Your task to perform on an android device: turn on priority inbox in the gmail app Image 0: 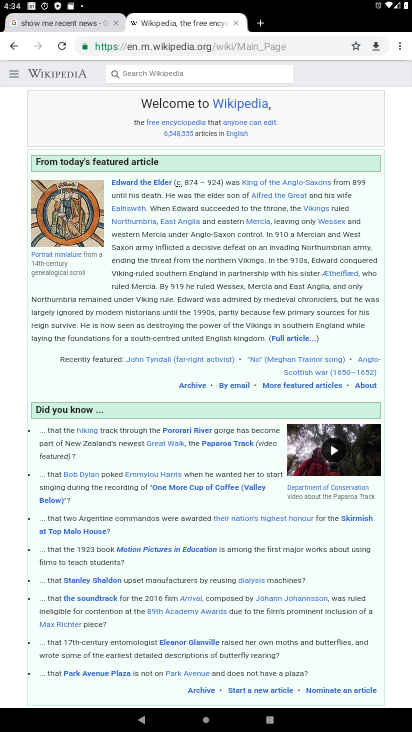
Step 0: press home button
Your task to perform on an android device: turn on priority inbox in the gmail app Image 1: 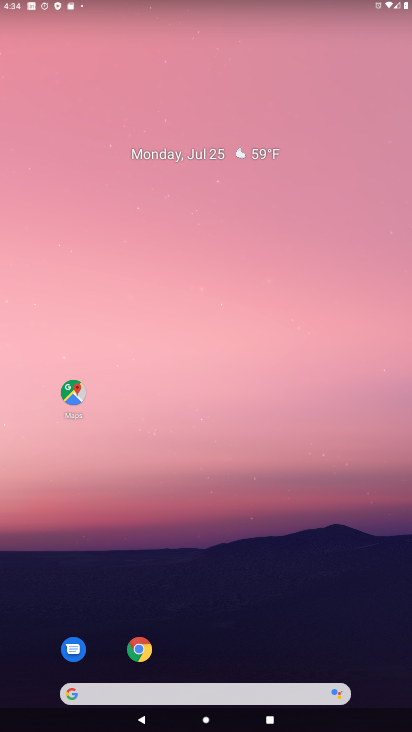
Step 1: drag from (273, 652) to (181, 214)
Your task to perform on an android device: turn on priority inbox in the gmail app Image 2: 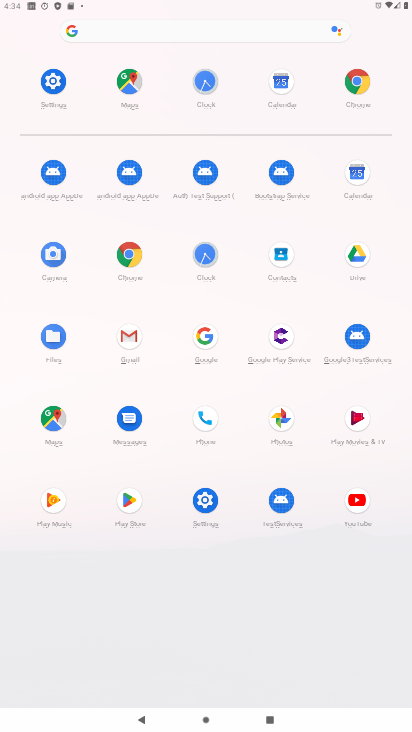
Step 2: click (130, 334)
Your task to perform on an android device: turn on priority inbox in the gmail app Image 3: 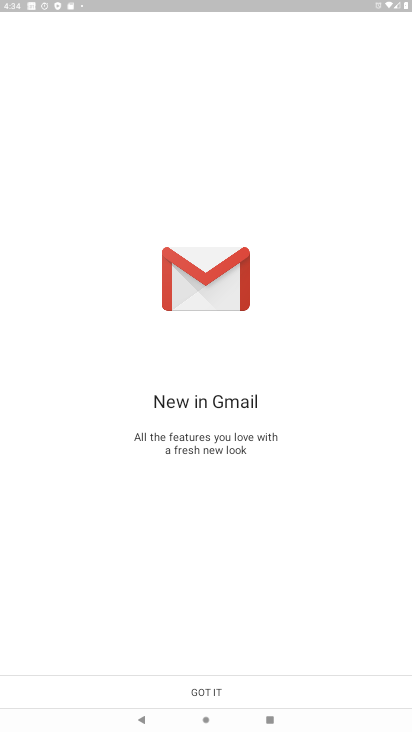
Step 3: click (198, 690)
Your task to perform on an android device: turn on priority inbox in the gmail app Image 4: 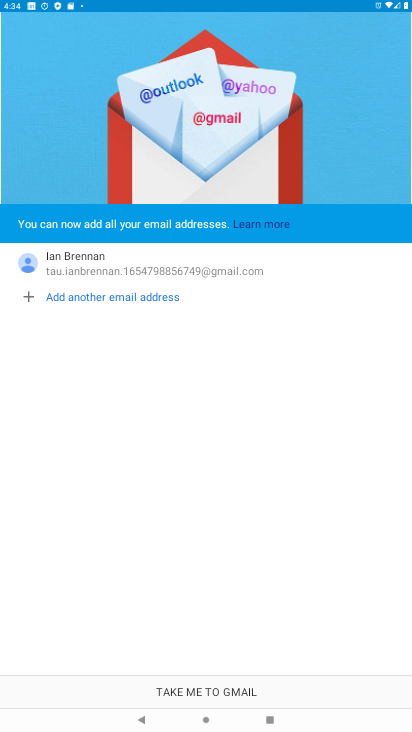
Step 4: click (198, 692)
Your task to perform on an android device: turn on priority inbox in the gmail app Image 5: 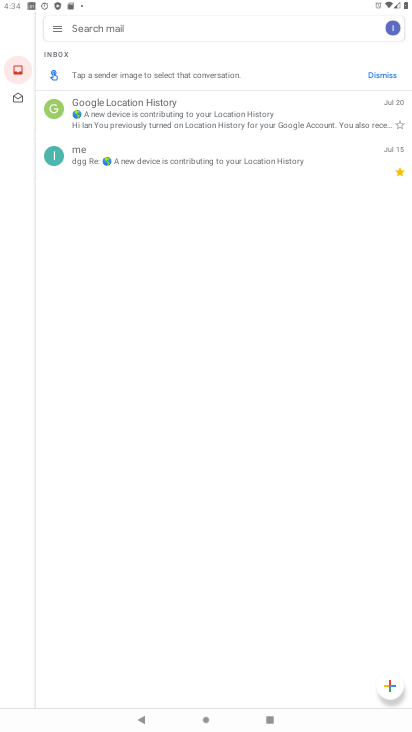
Step 5: click (60, 28)
Your task to perform on an android device: turn on priority inbox in the gmail app Image 6: 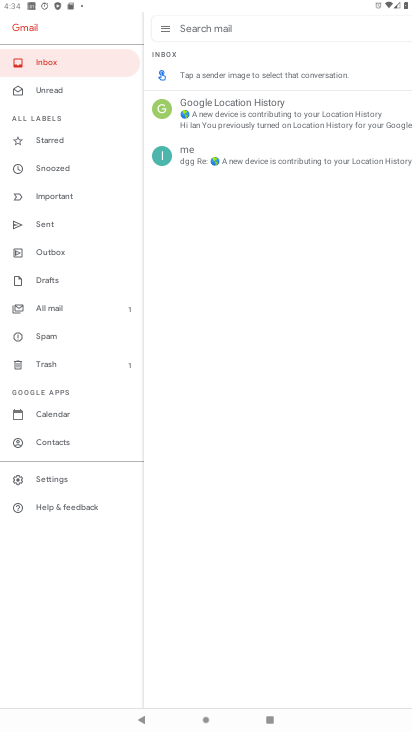
Step 6: click (84, 479)
Your task to perform on an android device: turn on priority inbox in the gmail app Image 7: 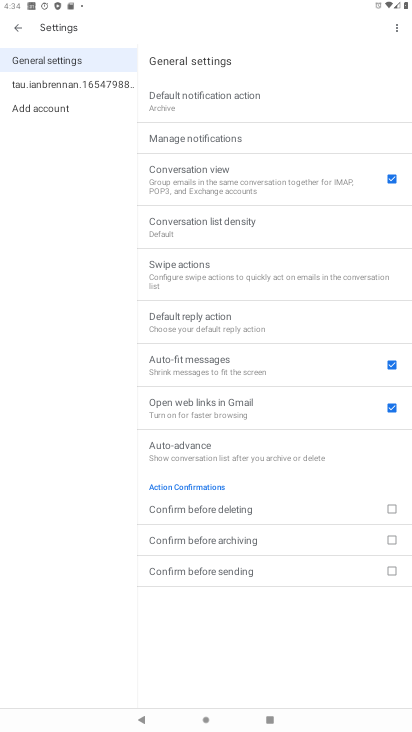
Step 7: click (99, 89)
Your task to perform on an android device: turn on priority inbox in the gmail app Image 8: 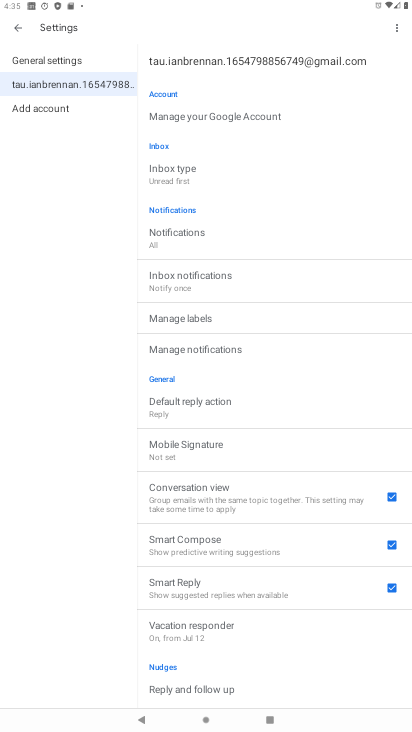
Step 8: click (193, 171)
Your task to perform on an android device: turn on priority inbox in the gmail app Image 9: 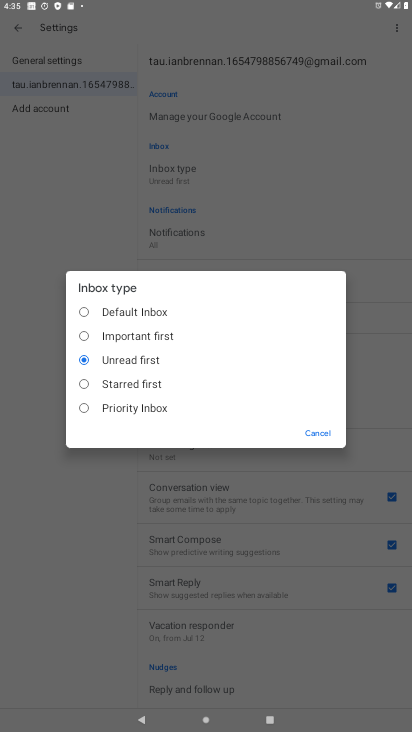
Step 9: click (158, 416)
Your task to perform on an android device: turn on priority inbox in the gmail app Image 10: 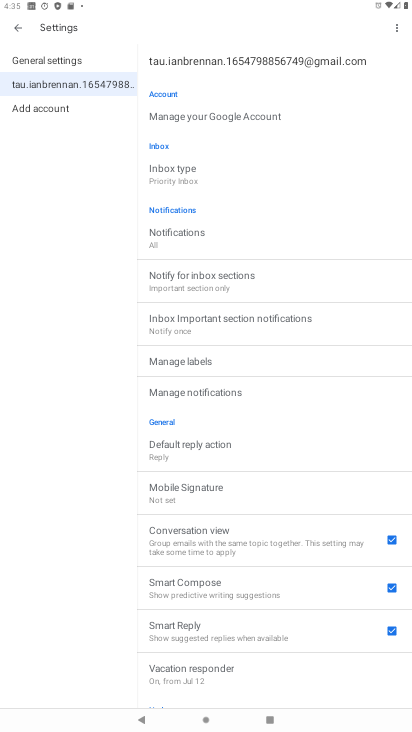
Step 10: task complete